Your task to perform on an android device: change text size in settings app Image 0: 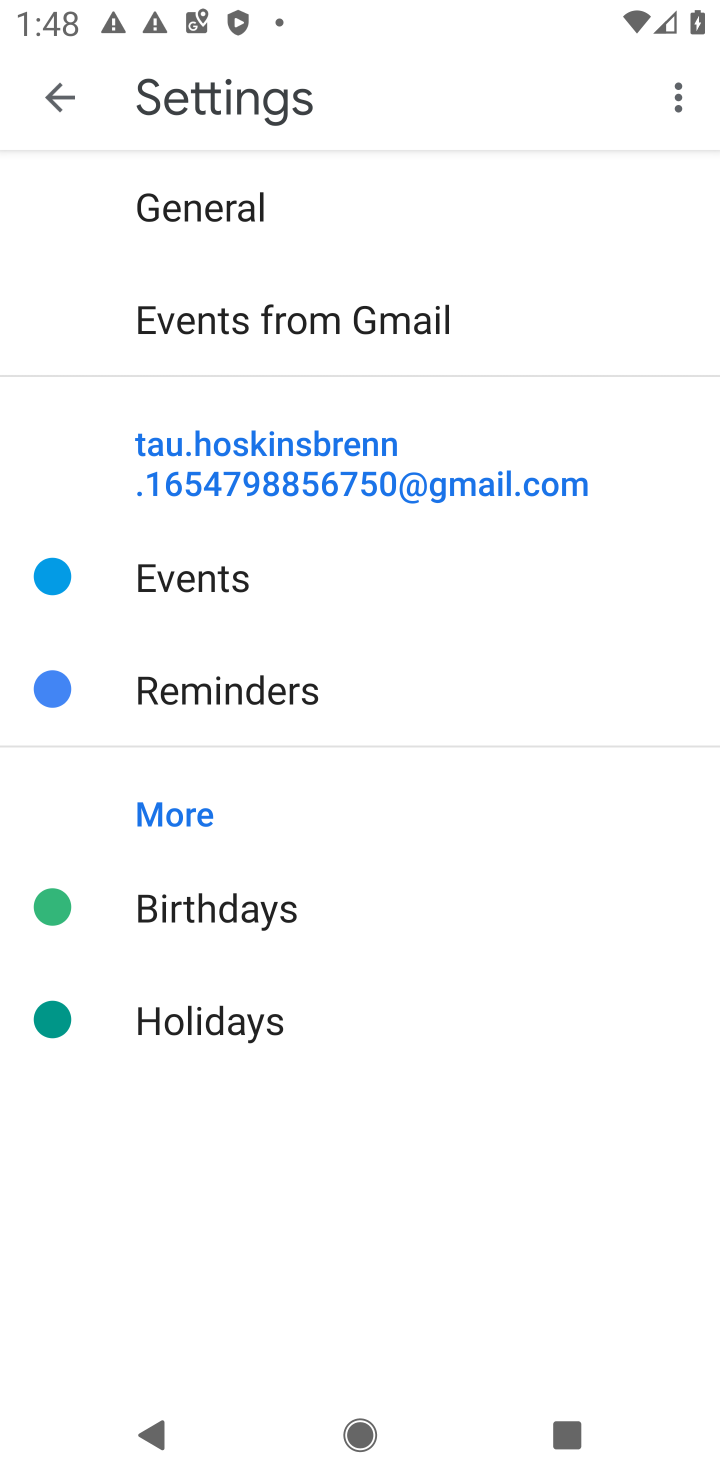
Step 0: press home button
Your task to perform on an android device: change text size in settings app Image 1: 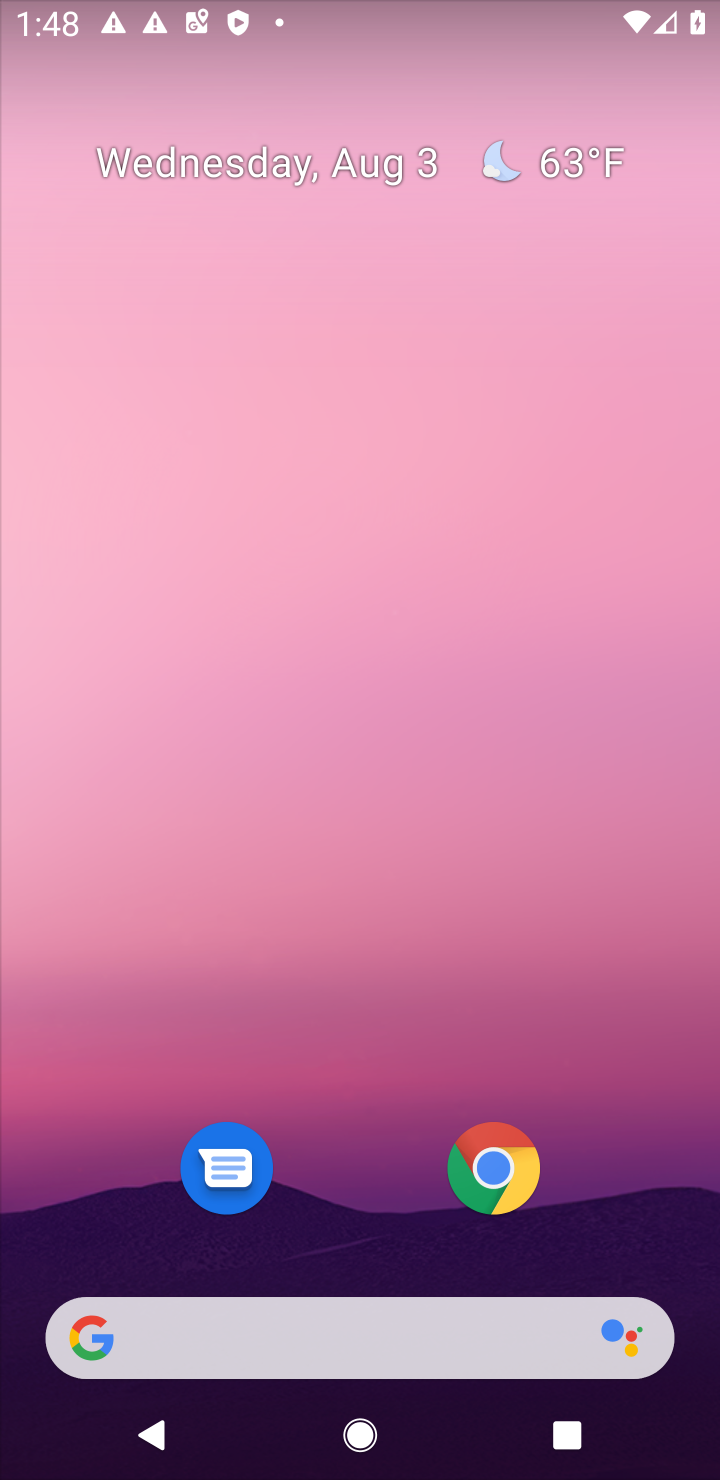
Step 1: drag from (649, 1222) to (597, 364)
Your task to perform on an android device: change text size in settings app Image 2: 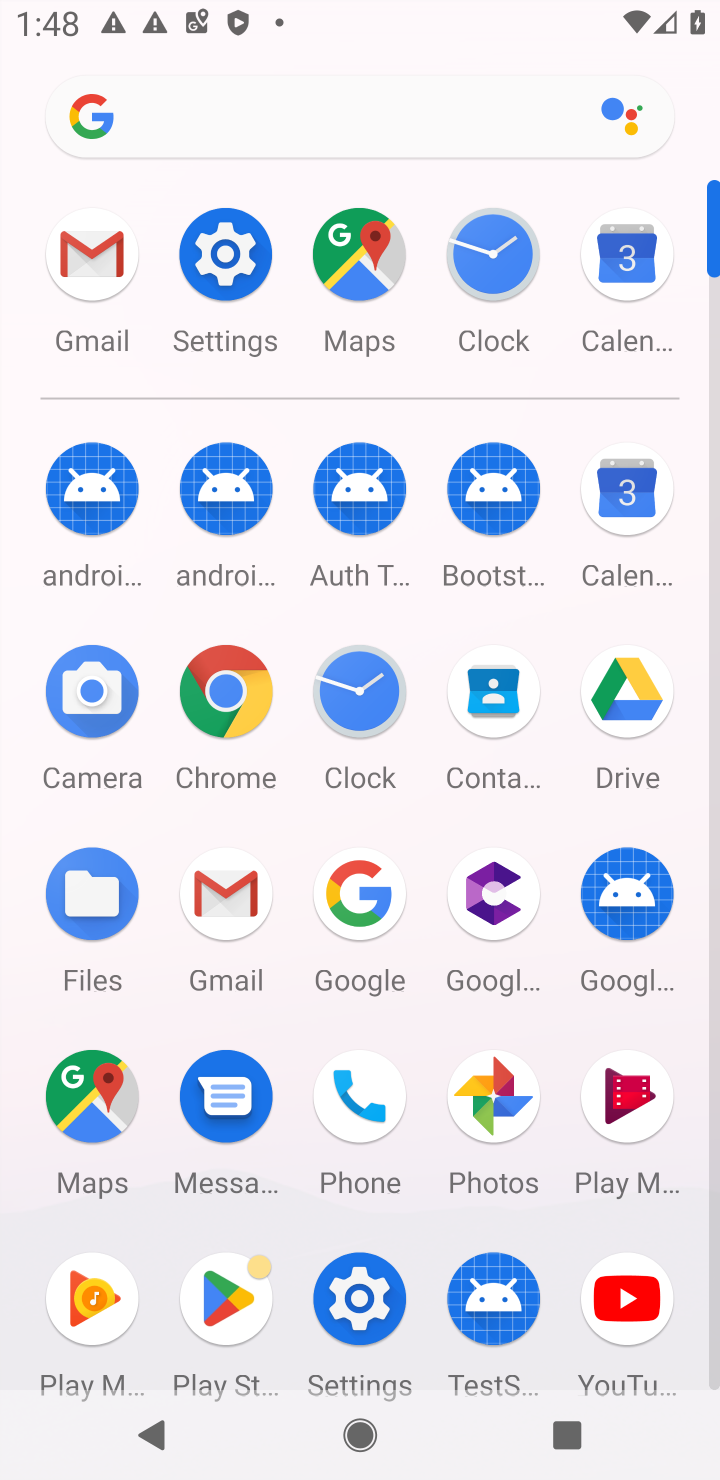
Step 2: click (352, 1304)
Your task to perform on an android device: change text size in settings app Image 3: 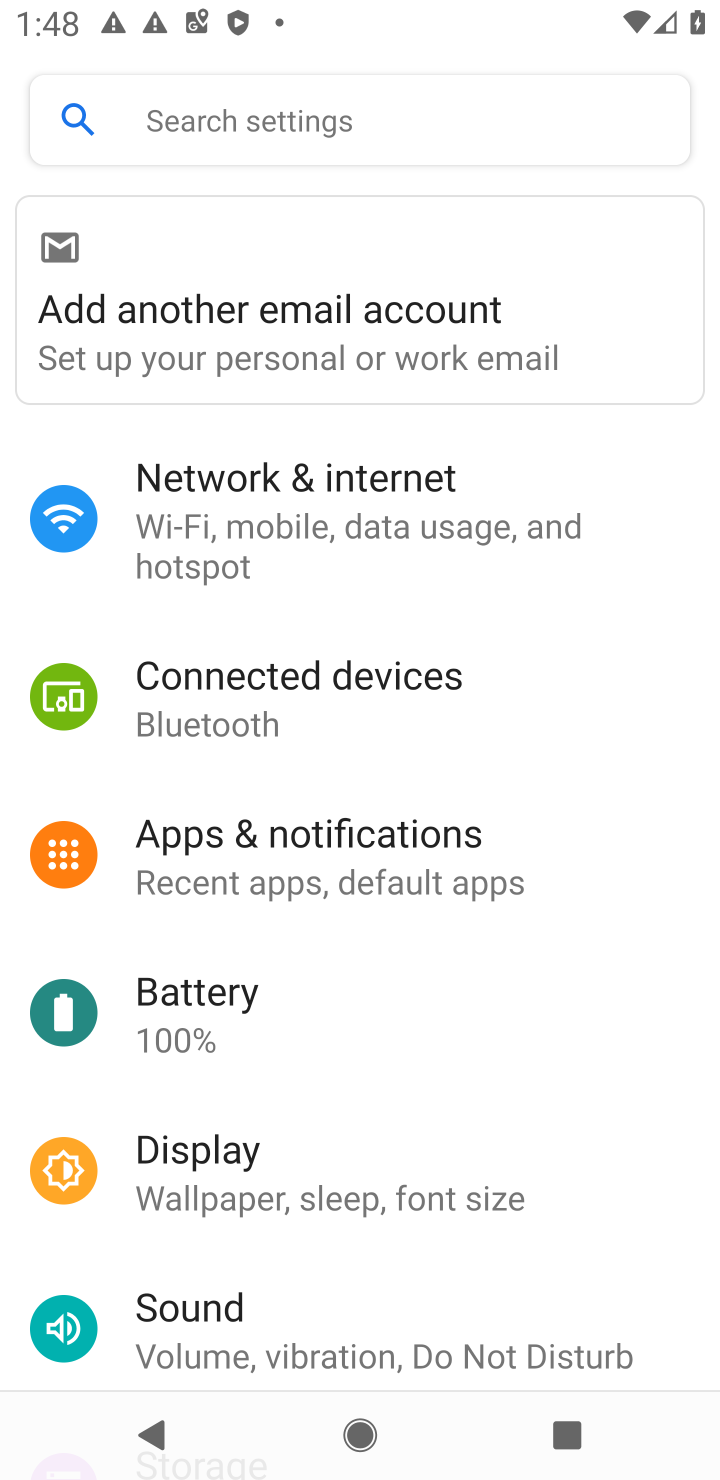
Step 3: click (223, 1182)
Your task to perform on an android device: change text size in settings app Image 4: 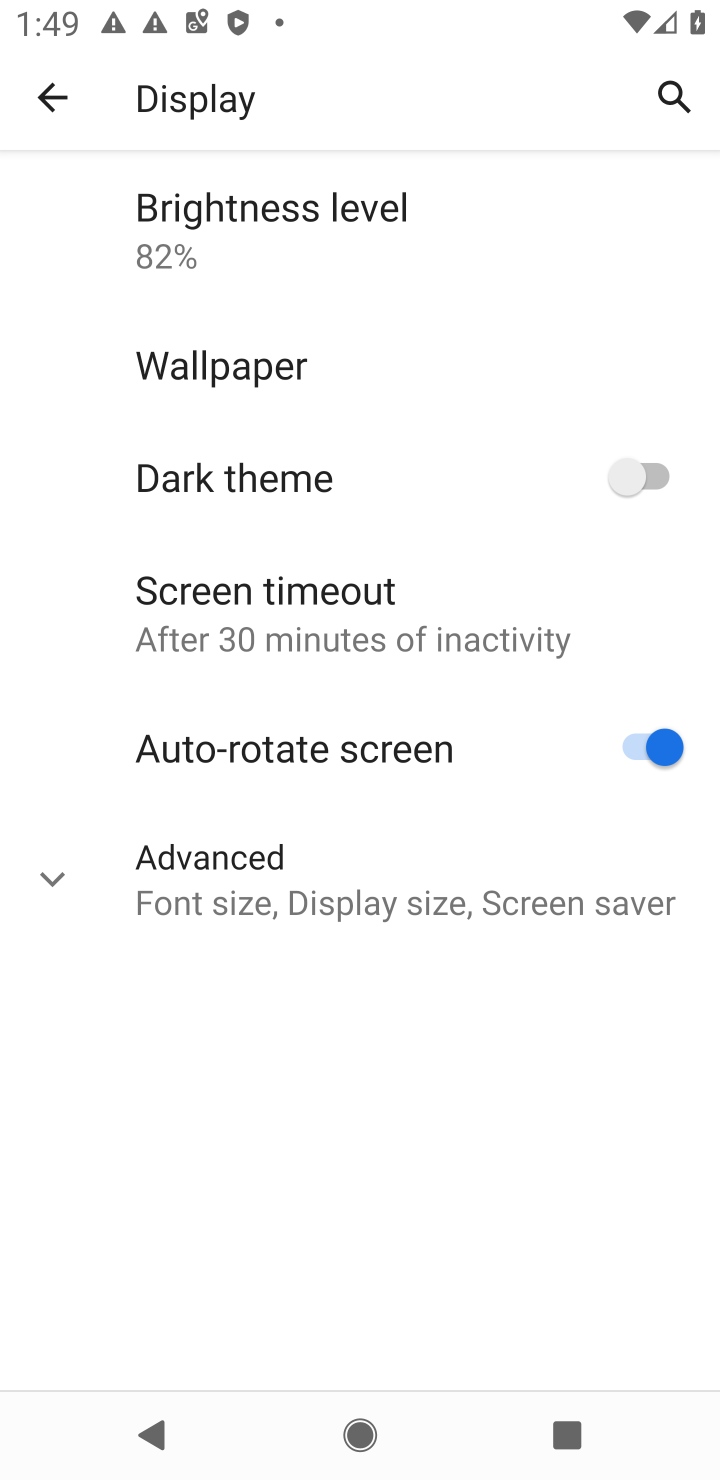
Step 4: click (41, 878)
Your task to perform on an android device: change text size in settings app Image 5: 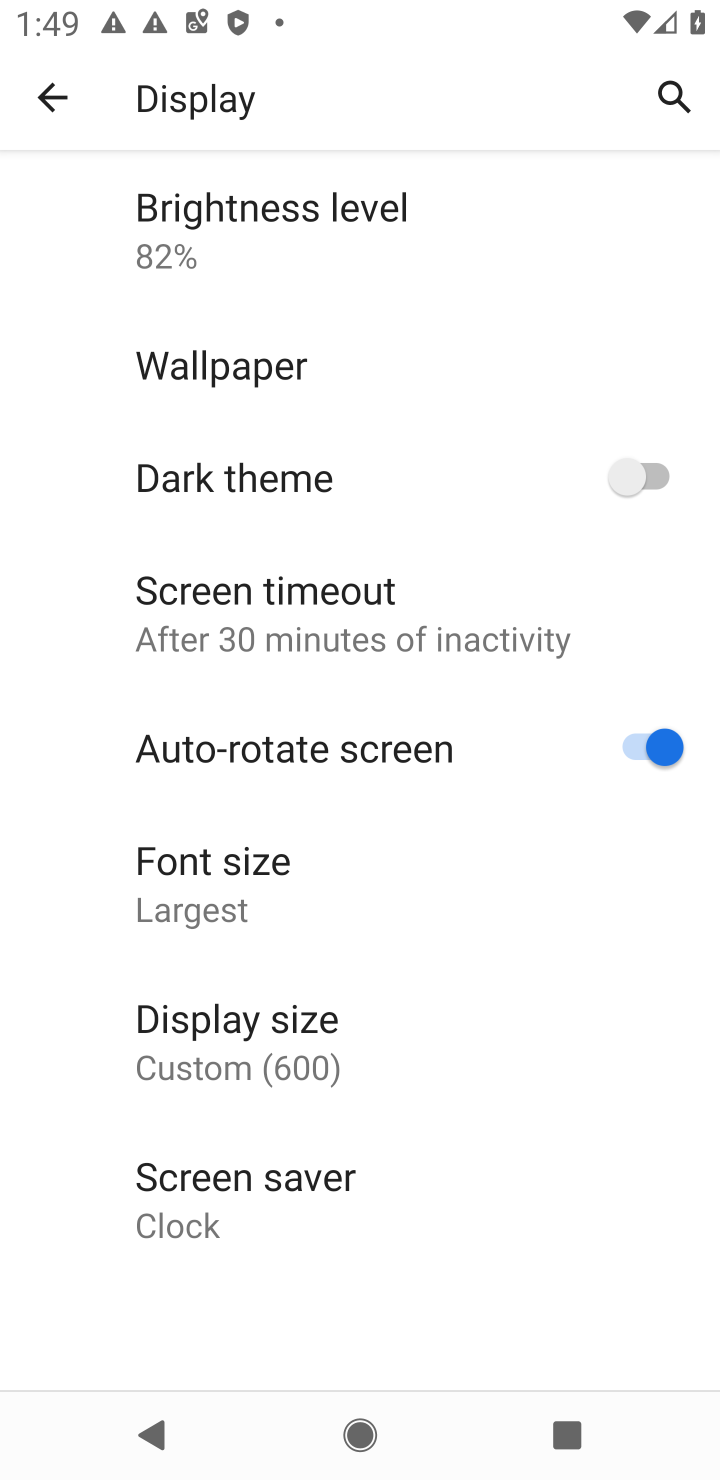
Step 5: click (202, 889)
Your task to perform on an android device: change text size in settings app Image 6: 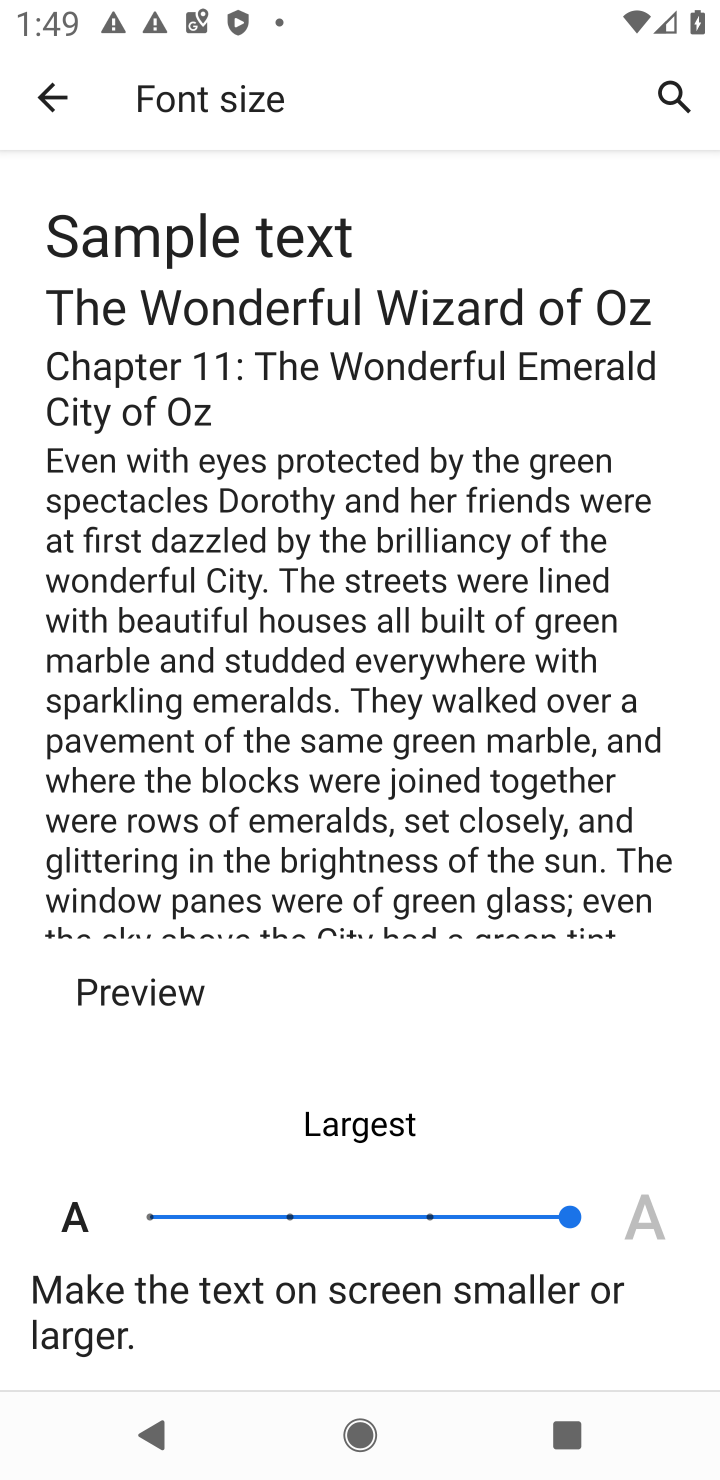
Step 6: click (427, 1219)
Your task to perform on an android device: change text size in settings app Image 7: 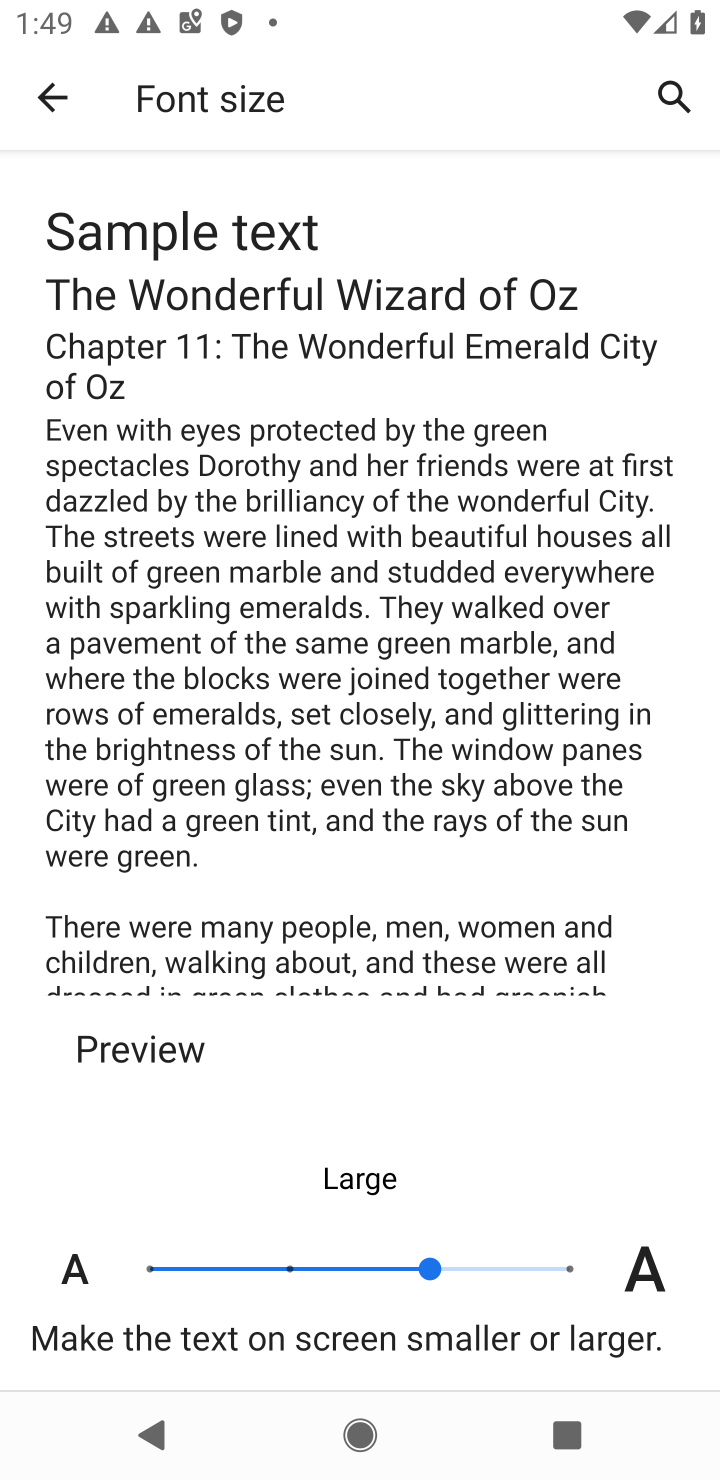
Step 7: task complete